Your task to perform on an android device: Open settings on Google Maps Image 0: 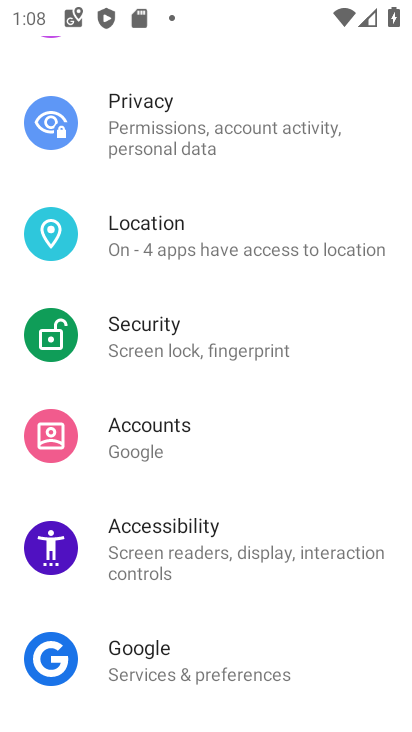
Step 0: press home button
Your task to perform on an android device: Open settings on Google Maps Image 1: 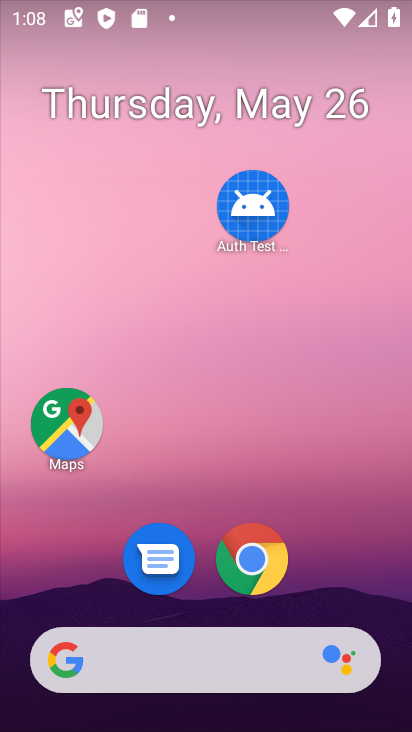
Step 1: click (48, 422)
Your task to perform on an android device: Open settings on Google Maps Image 2: 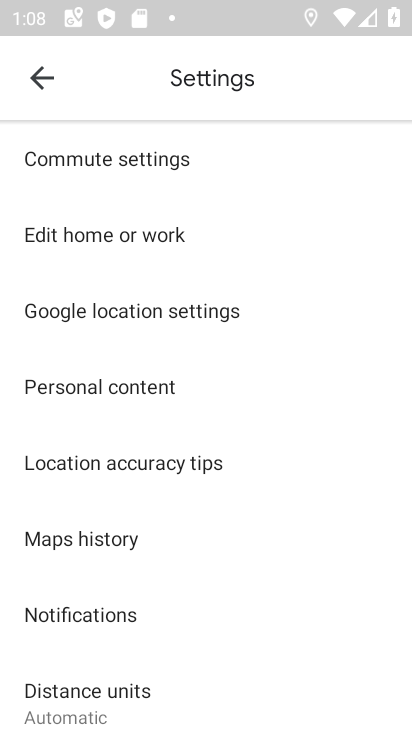
Step 2: task complete